Your task to perform on an android device: refresh tabs in the chrome app Image 0: 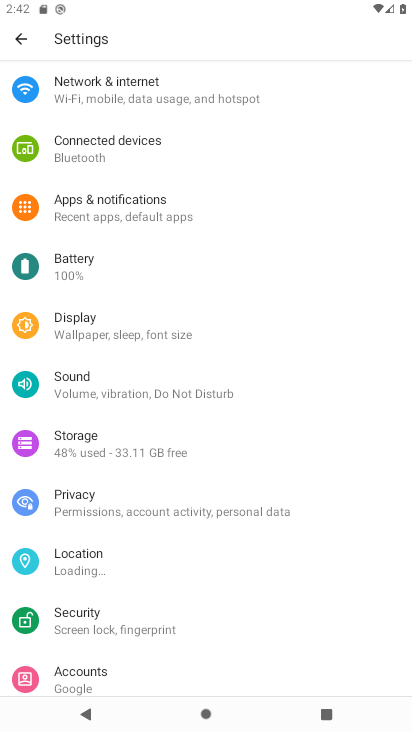
Step 0: press back button
Your task to perform on an android device: refresh tabs in the chrome app Image 1: 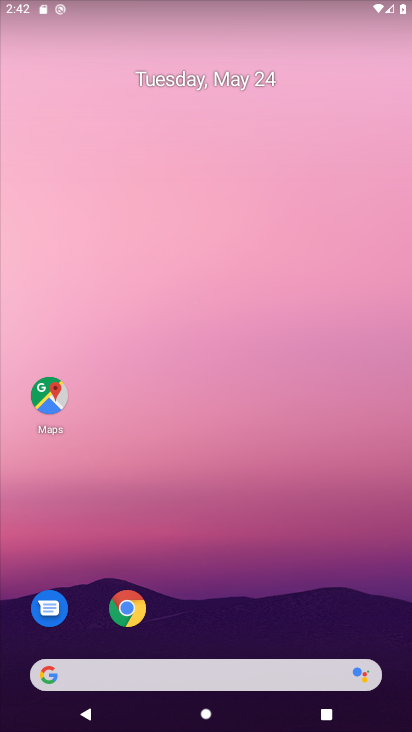
Step 1: drag from (246, 581) to (192, 0)
Your task to perform on an android device: refresh tabs in the chrome app Image 2: 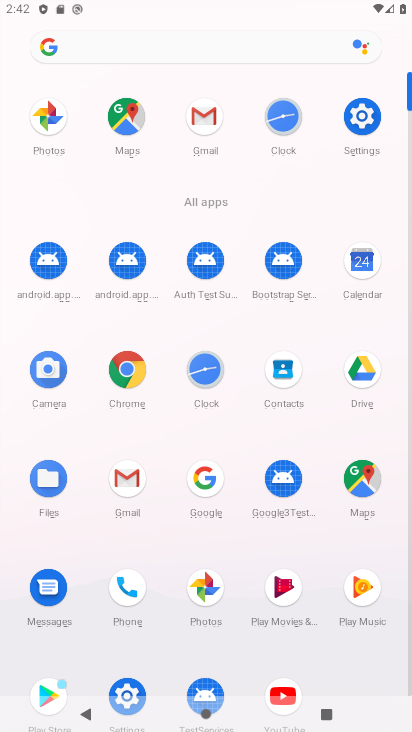
Step 2: drag from (2, 500) to (5, 201)
Your task to perform on an android device: refresh tabs in the chrome app Image 3: 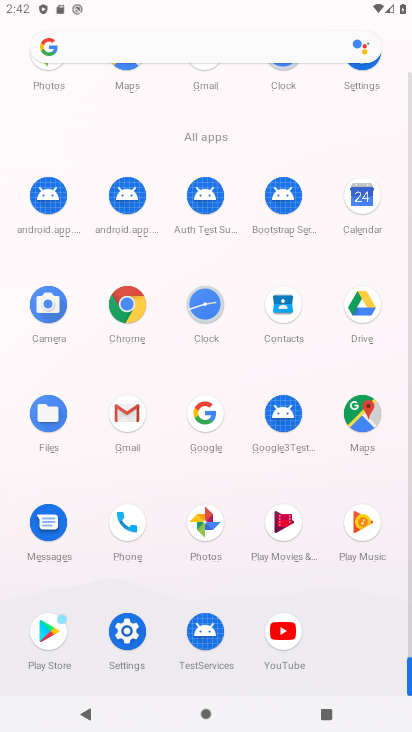
Step 3: click (126, 300)
Your task to perform on an android device: refresh tabs in the chrome app Image 4: 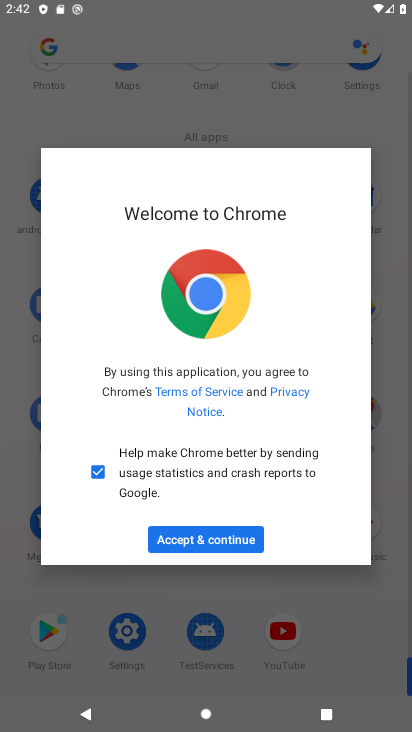
Step 4: click (204, 542)
Your task to perform on an android device: refresh tabs in the chrome app Image 5: 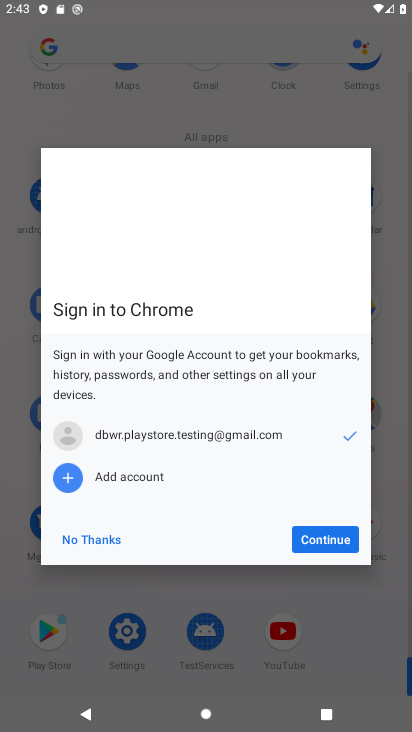
Step 5: click (306, 536)
Your task to perform on an android device: refresh tabs in the chrome app Image 6: 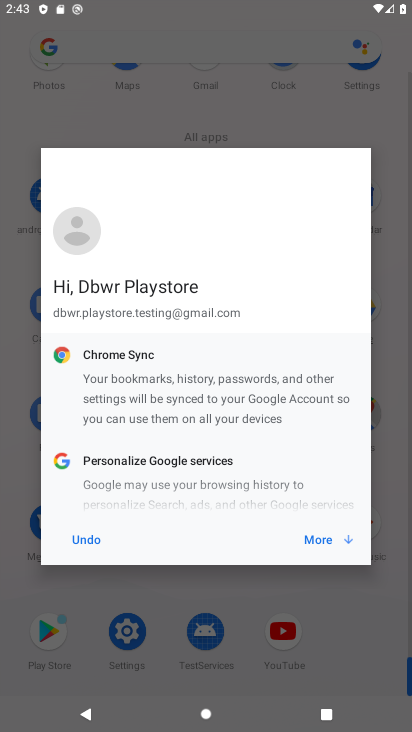
Step 6: click (306, 536)
Your task to perform on an android device: refresh tabs in the chrome app Image 7: 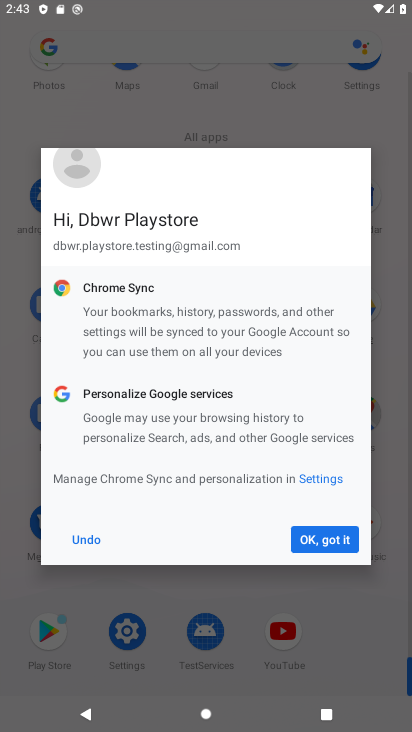
Step 7: click (306, 536)
Your task to perform on an android device: refresh tabs in the chrome app Image 8: 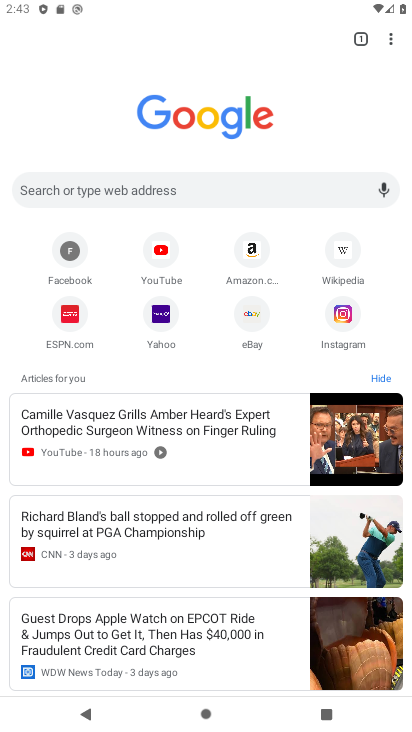
Step 8: click (389, 37)
Your task to perform on an android device: refresh tabs in the chrome app Image 9: 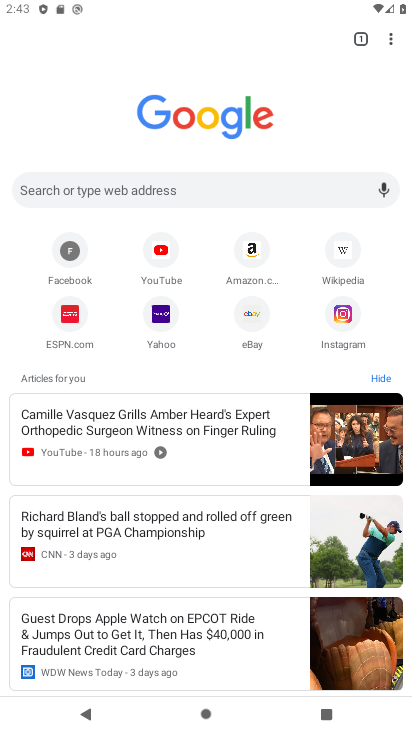
Step 9: task complete